Your task to perform on an android device: open a bookmark in the chrome app Image 0: 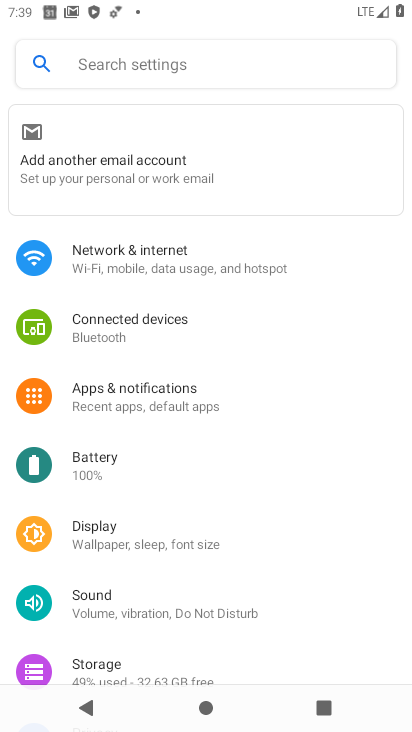
Step 0: press home button
Your task to perform on an android device: open a bookmark in the chrome app Image 1: 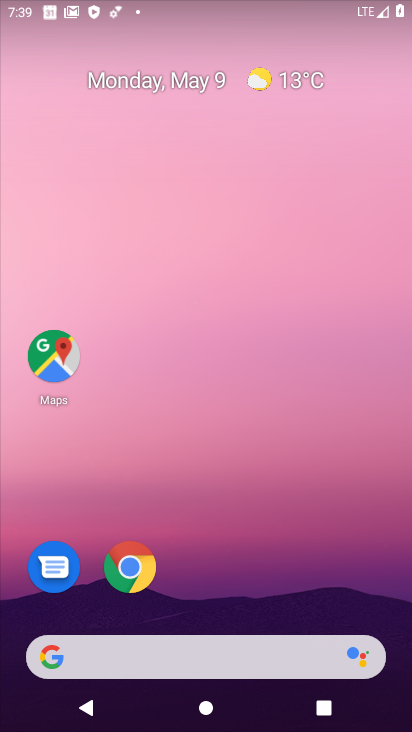
Step 1: drag from (238, 562) to (318, 36)
Your task to perform on an android device: open a bookmark in the chrome app Image 2: 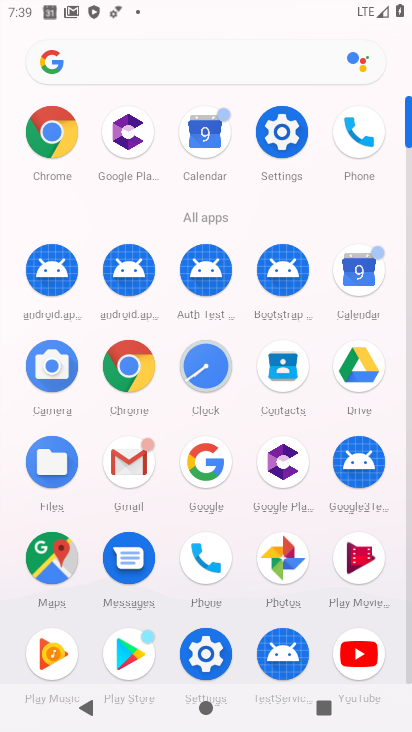
Step 2: click (142, 357)
Your task to perform on an android device: open a bookmark in the chrome app Image 3: 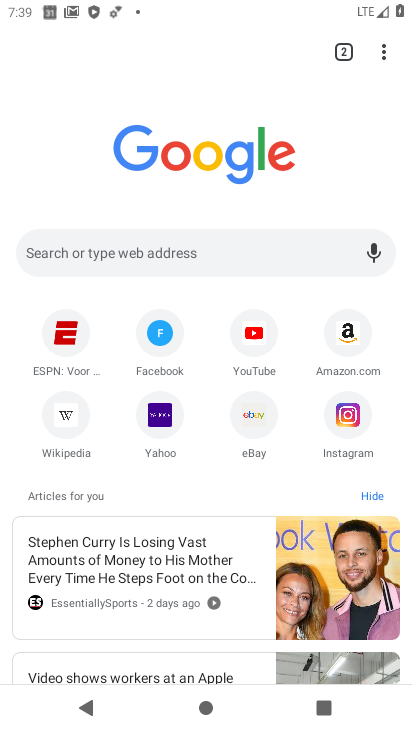
Step 3: drag from (382, 48) to (235, 195)
Your task to perform on an android device: open a bookmark in the chrome app Image 4: 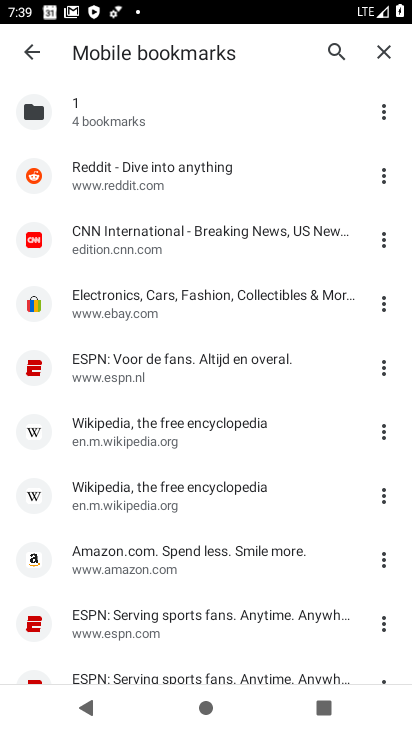
Step 4: click (230, 158)
Your task to perform on an android device: open a bookmark in the chrome app Image 5: 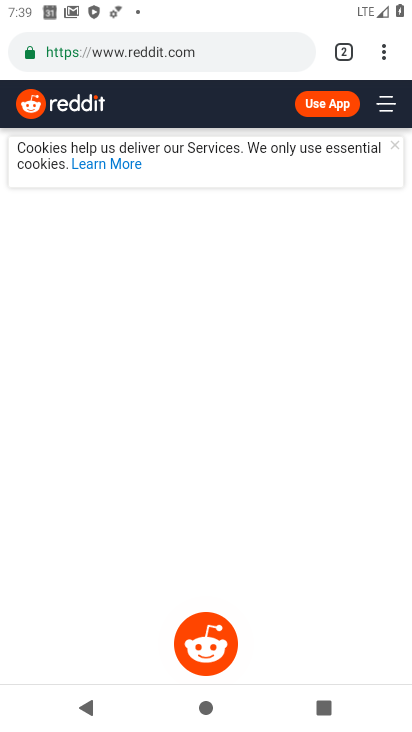
Step 5: task complete